Your task to perform on an android device: turn off priority inbox in the gmail app Image 0: 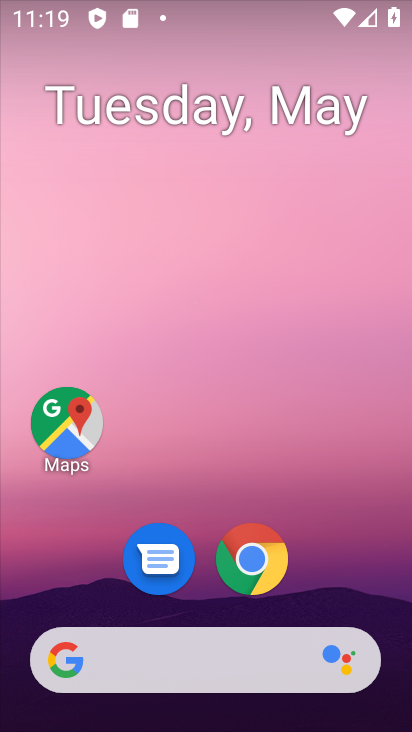
Step 0: drag from (152, 362) to (191, 261)
Your task to perform on an android device: turn off priority inbox in the gmail app Image 1: 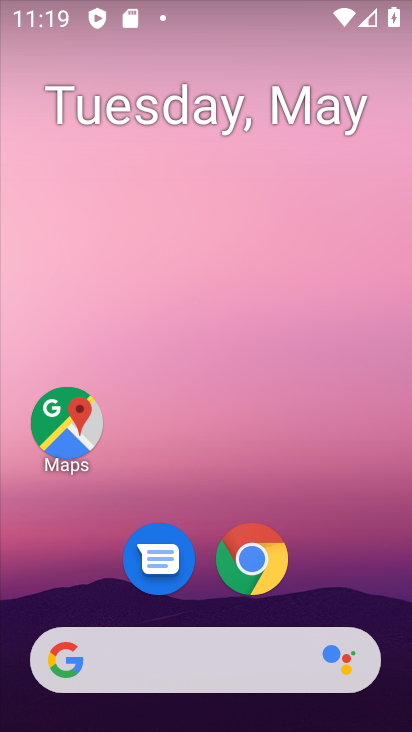
Step 1: drag from (96, 574) to (207, 177)
Your task to perform on an android device: turn off priority inbox in the gmail app Image 2: 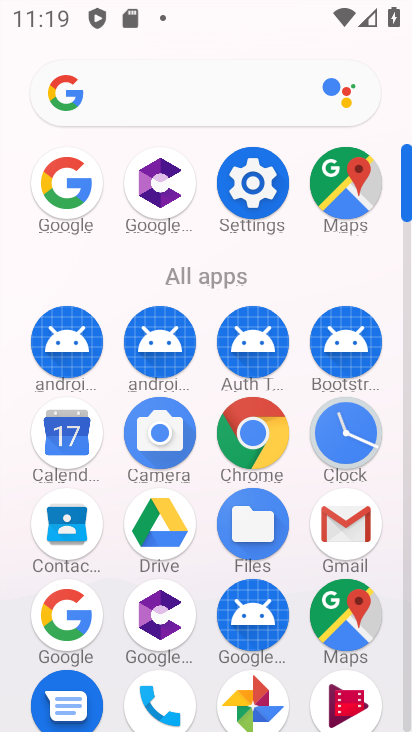
Step 2: drag from (195, 641) to (234, 421)
Your task to perform on an android device: turn off priority inbox in the gmail app Image 3: 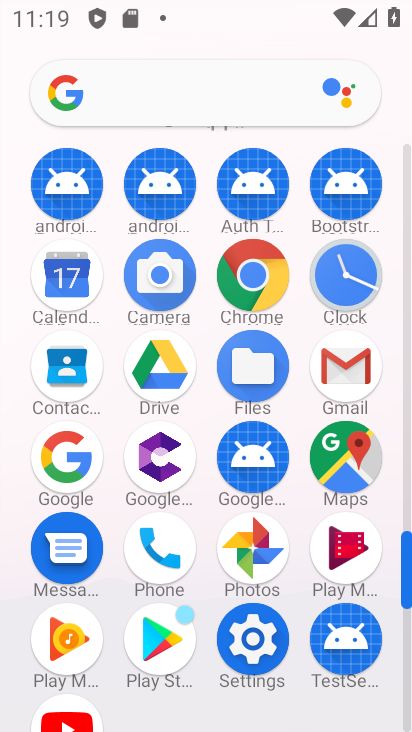
Step 3: click (352, 369)
Your task to perform on an android device: turn off priority inbox in the gmail app Image 4: 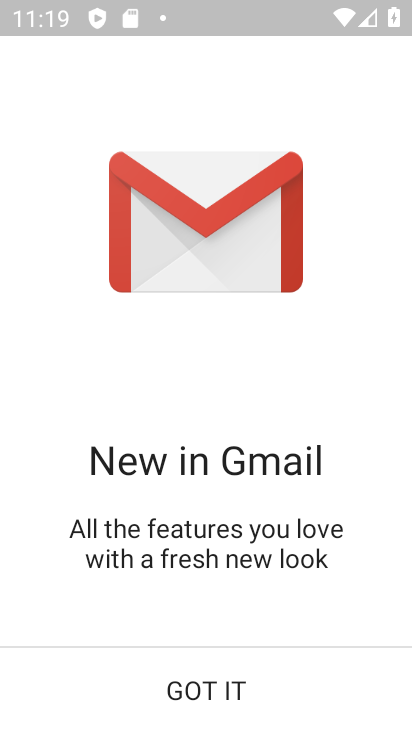
Step 4: click (264, 679)
Your task to perform on an android device: turn off priority inbox in the gmail app Image 5: 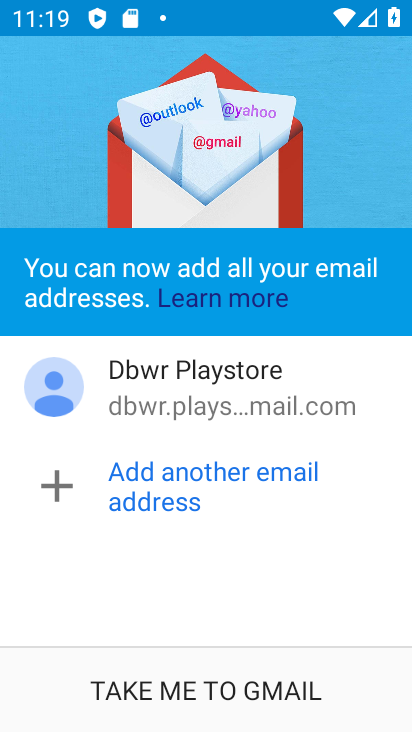
Step 5: click (252, 699)
Your task to perform on an android device: turn off priority inbox in the gmail app Image 6: 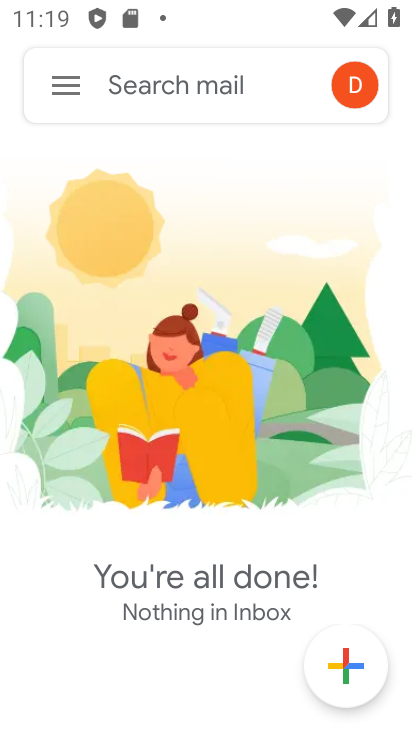
Step 6: click (71, 92)
Your task to perform on an android device: turn off priority inbox in the gmail app Image 7: 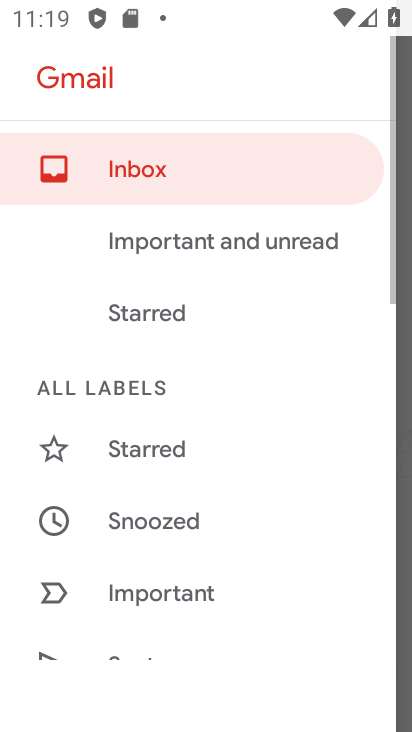
Step 7: drag from (161, 595) to (284, 293)
Your task to perform on an android device: turn off priority inbox in the gmail app Image 8: 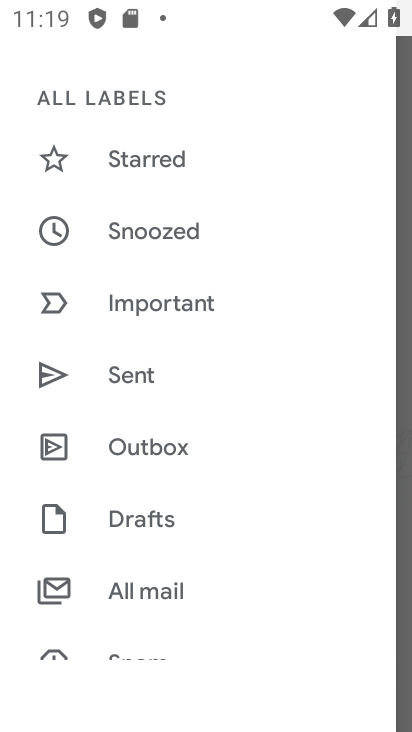
Step 8: drag from (136, 651) to (308, 138)
Your task to perform on an android device: turn off priority inbox in the gmail app Image 9: 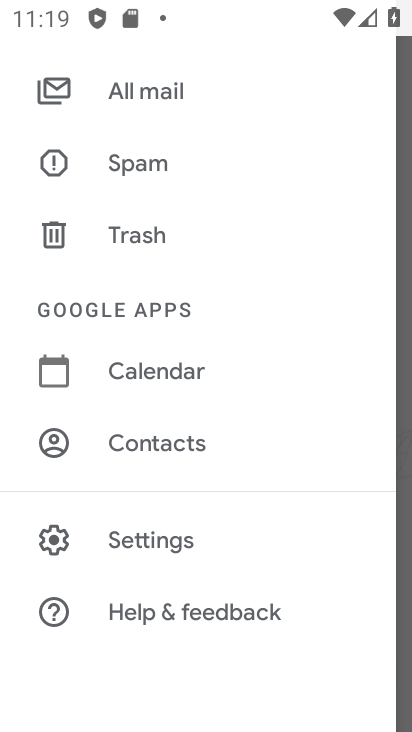
Step 9: click (205, 540)
Your task to perform on an android device: turn off priority inbox in the gmail app Image 10: 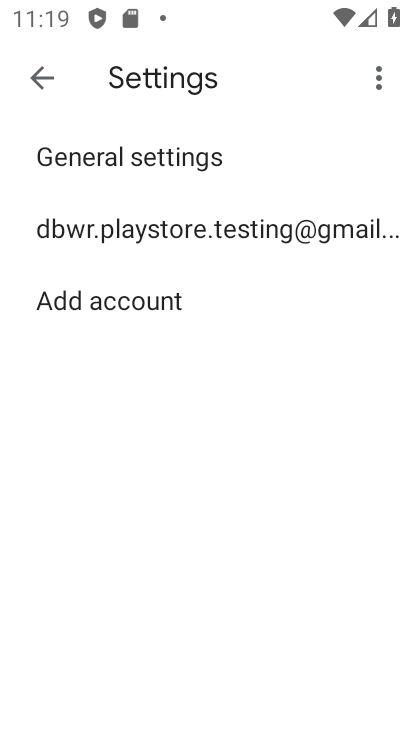
Step 10: click (279, 231)
Your task to perform on an android device: turn off priority inbox in the gmail app Image 11: 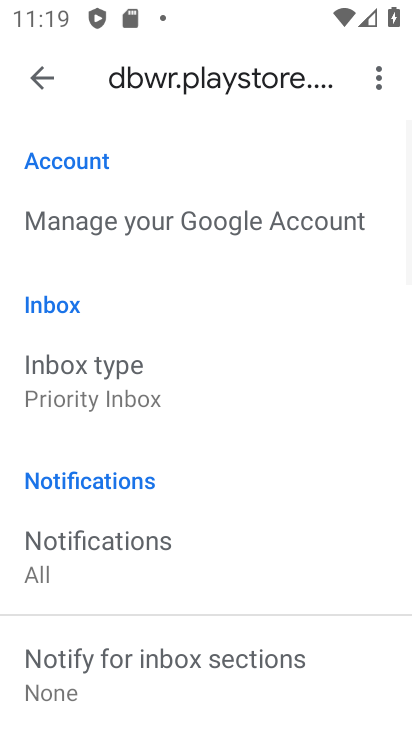
Step 11: drag from (216, 608) to (334, 207)
Your task to perform on an android device: turn off priority inbox in the gmail app Image 12: 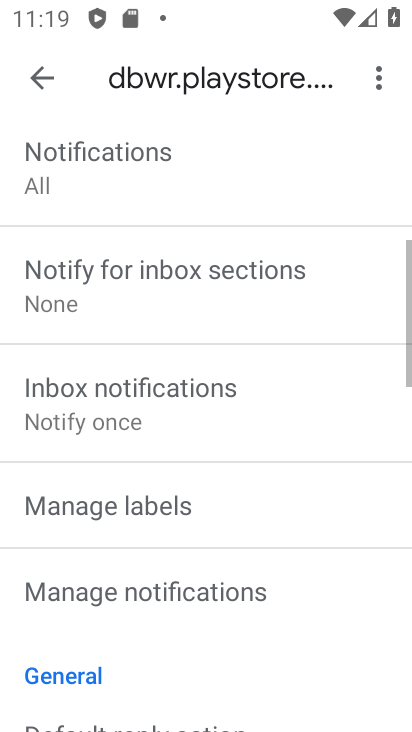
Step 12: drag from (237, 578) to (334, 252)
Your task to perform on an android device: turn off priority inbox in the gmail app Image 13: 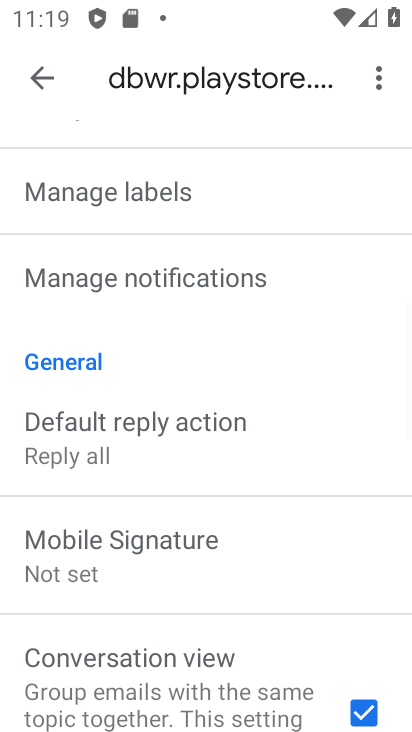
Step 13: drag from (224, 565) to (252, 620)
Your task to perform on an android device: turn off priority inbox in the gmail app Image 14: 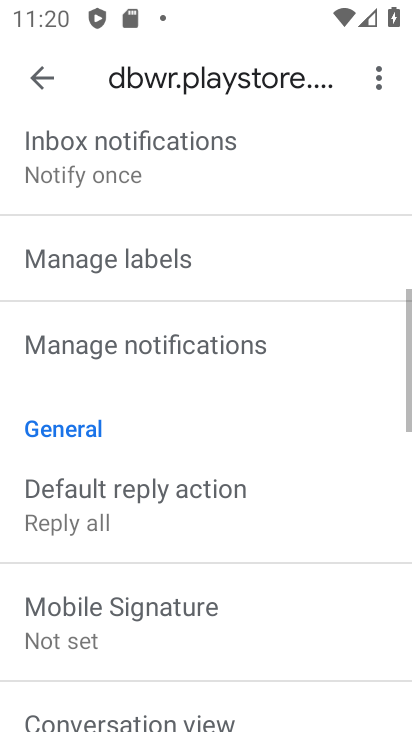
Step 14: drag from (249, 227) to (231, 630)
Your task to perform on an android device: turn off priority inbox in the gmail app Image 15: 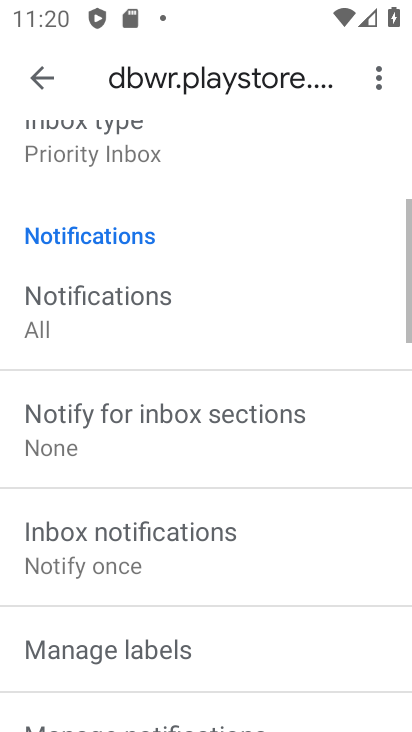
Step 15: drag from (239, 253) to (233, 629)
Your task to perform on an android device: turn off priority inbox in the gmail app Image 16: 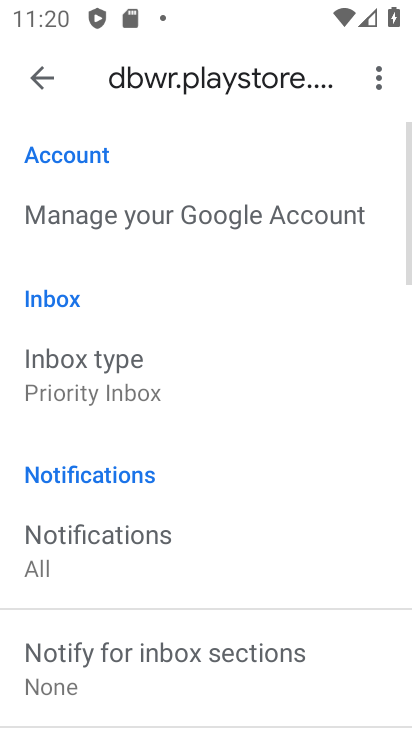
Step 16: click (211, 391)
Your task to perform on an android device: turn off priority inbox in the gmail app Image 17: 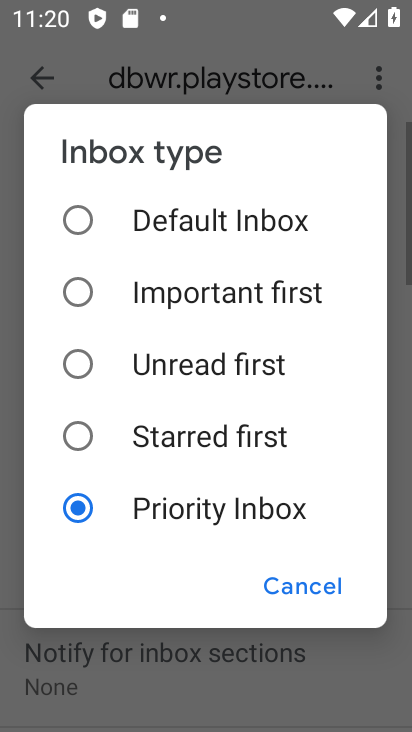
Step 17: click (255, 222)
Your task to perform on an android device: turn off priority inbox in the gmail app Image 18: 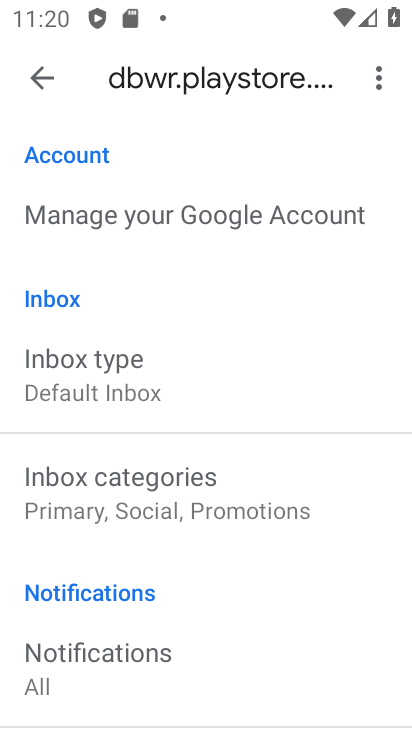
Step 18: task complete